Your task to perform on an android device: Set the phone to "Do not disturb". Image 0: 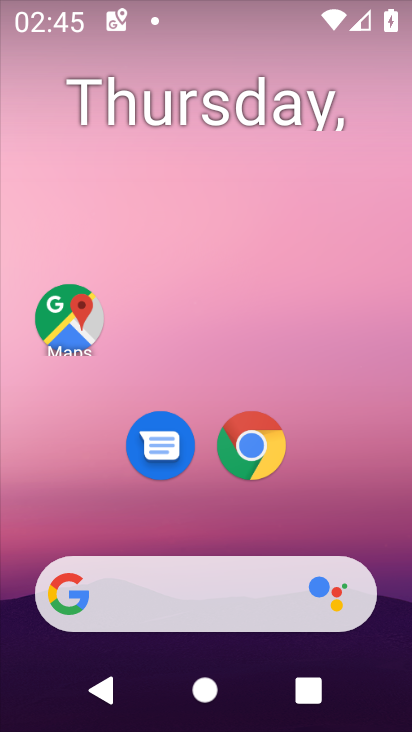
Step 0: press home button
Your task to perform on an android device: Set the phone to "Do not disturb". Image 1: 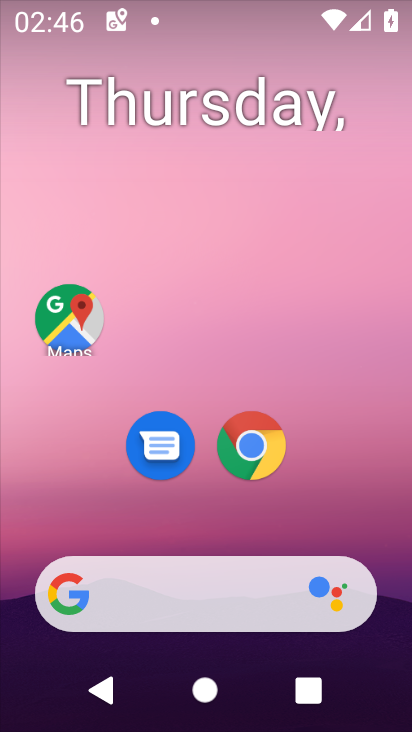
Step 1: drag from (187, 2) to (166, 483)
Your task to perform on an android device: Set the phone to "Do not disturb". Image 2: 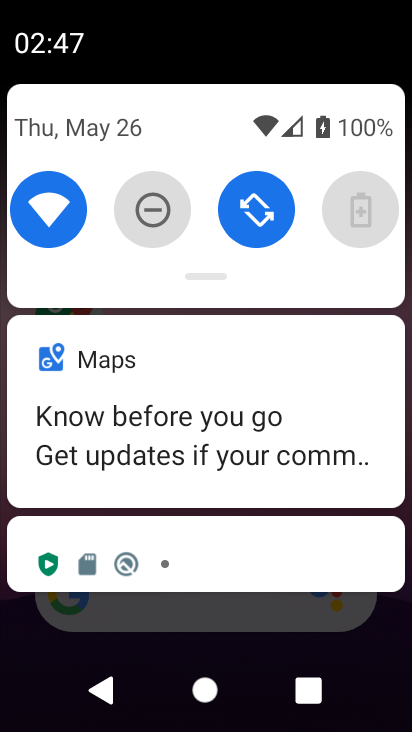
Step 2: click (156, 203)
Your task to perform on an android device: Set the phone to "Do not disturb". Image 3: 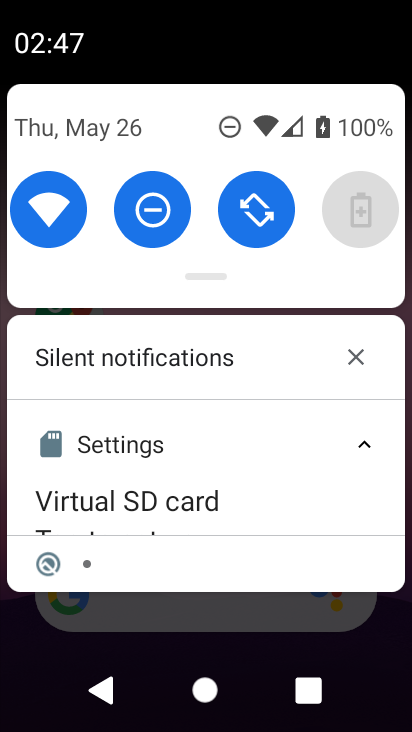
Step 3: task complete